Your task to perform on an android device: Open location settings Image 0: 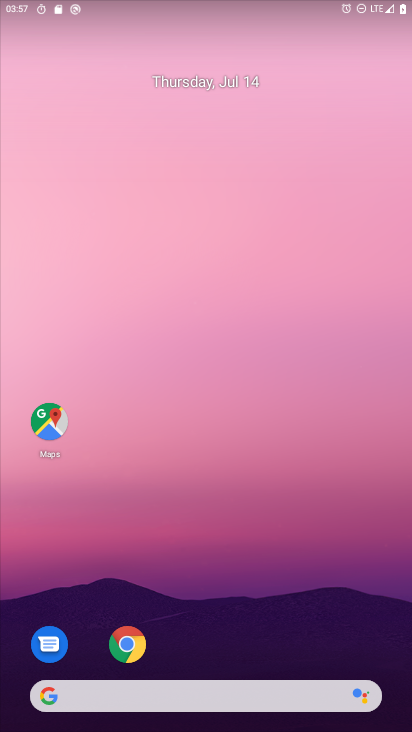
Step 0: drag from (314, 577) to (343, 96)
Your task to perform on an android device: Open location settings Image 1: 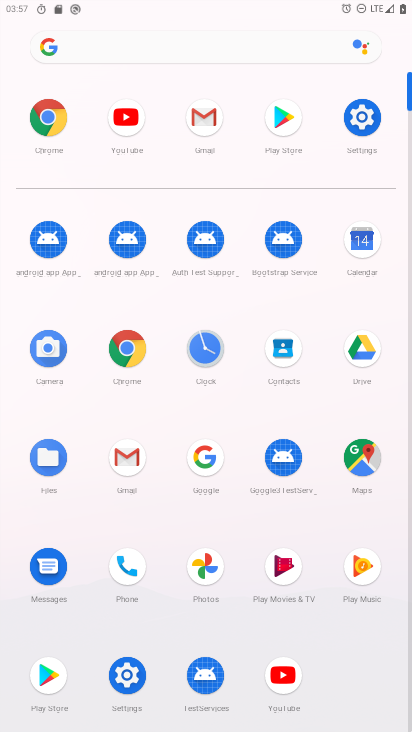
Step 1: click (361, 119)
Your task to perform on an android device: Open location settings Image 2: 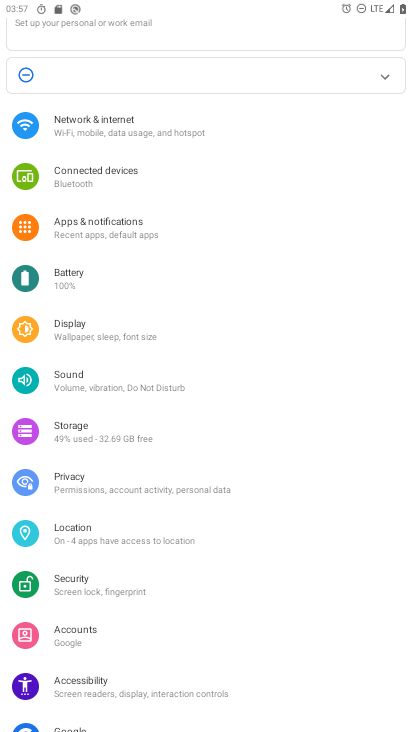
Step 2: click (113, 538)
Your task to perform on an android device: Open location settings Image 3: 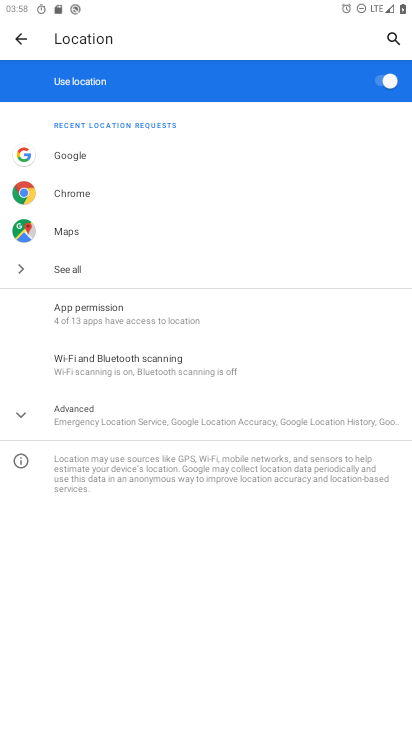
Step 3: task complete